Your task to perform on an android device: Show me the alarms in the clock app Image 0: 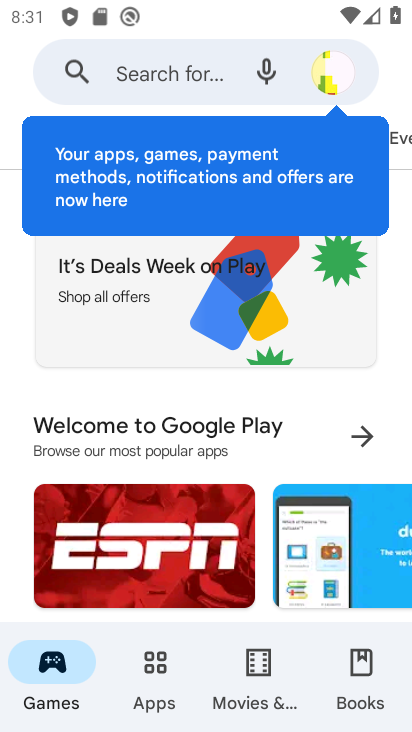
Step 0: press home button
Your task to perform on an android device: Show me the alarms in the clock app Image 1: 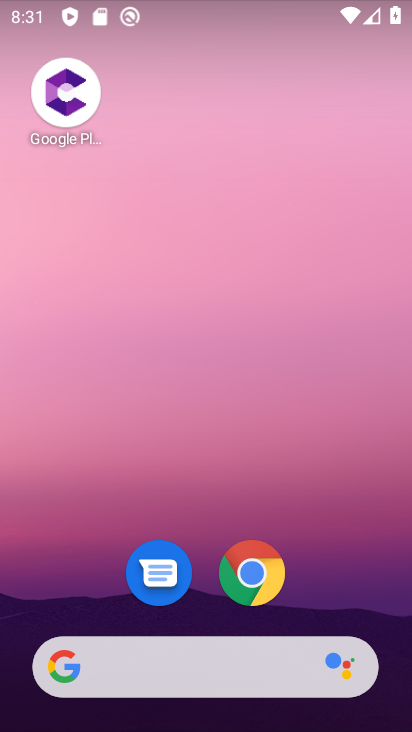
Step 1: drag from (346, 563) to (307, 258)
Your task to perform on an android device: Show me the alarms in the clock app Image 2: 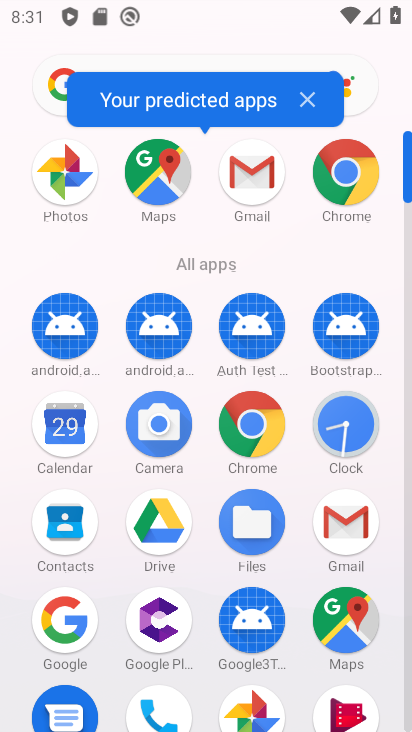
Step 2: click (348, 441)
Your task to perform on an android device: Show me the alarms in the clock app Image 3: 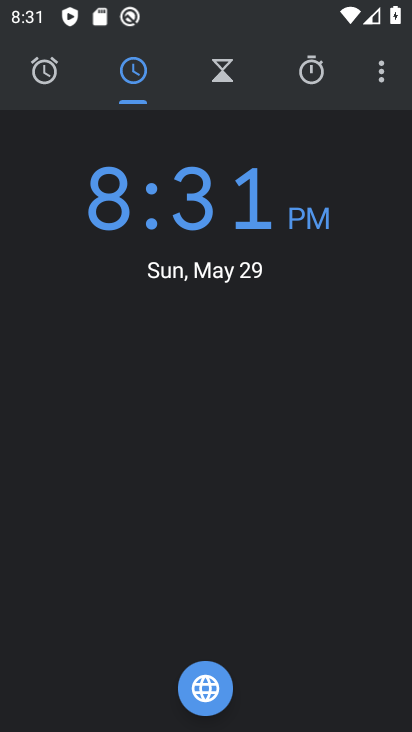
Step 3: click (55, 77)
Your task to perform on an android device: Show me the alarms in the clock app Image 4: 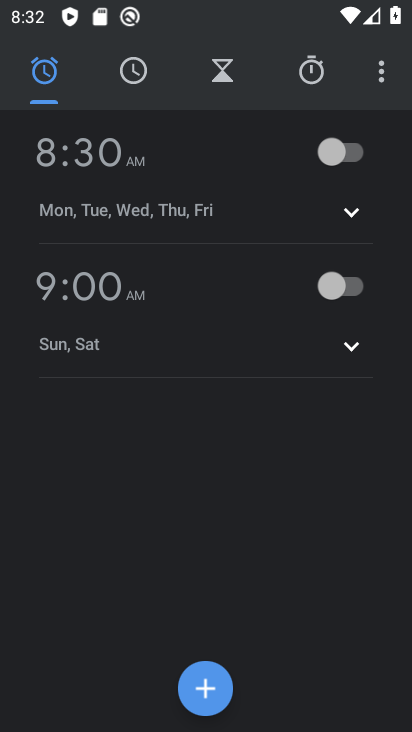
Step 4: task complete